Your task to perform on an android device: turn off notifications settings in the gmail app Image 0: 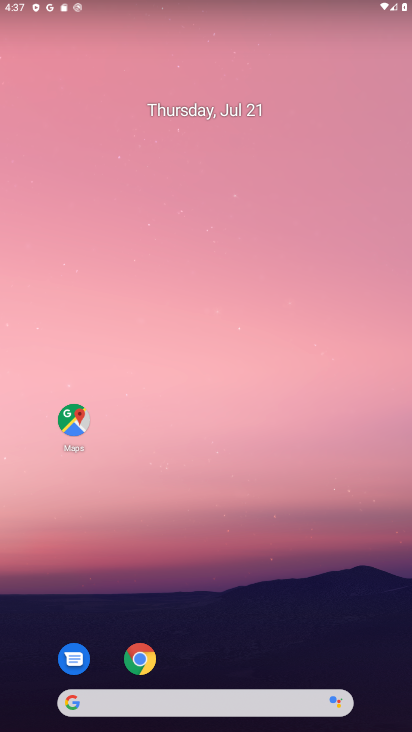
Step 0: drag from (245, 608) to (167, 126)
Your task to perform on an android device: turn off notifications settings in the gmail app Image 1: 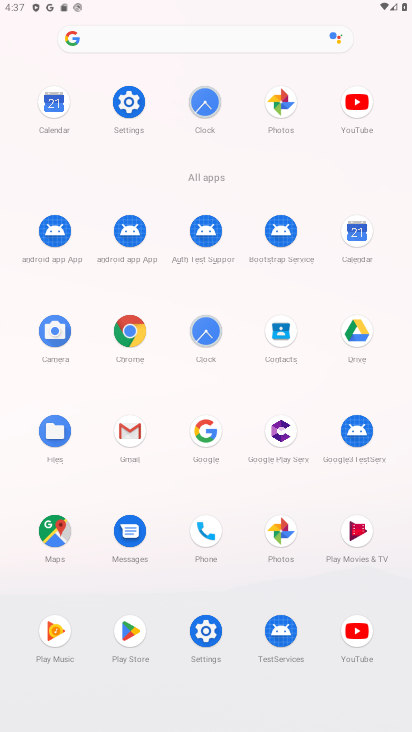
Step 1: click (128, 432)
Your task to perform on an android device: turn off notifications settings in the gmail app Image 2: 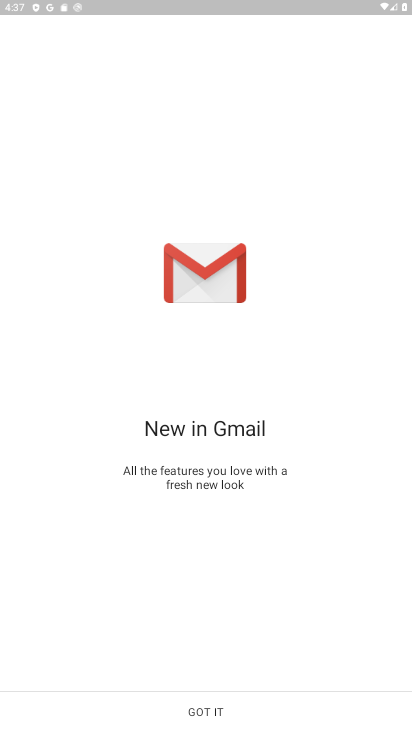
Step 2: click (206, 705)
Your task to perform on an android device: turn off notifications settings in the gmail app Image 3: 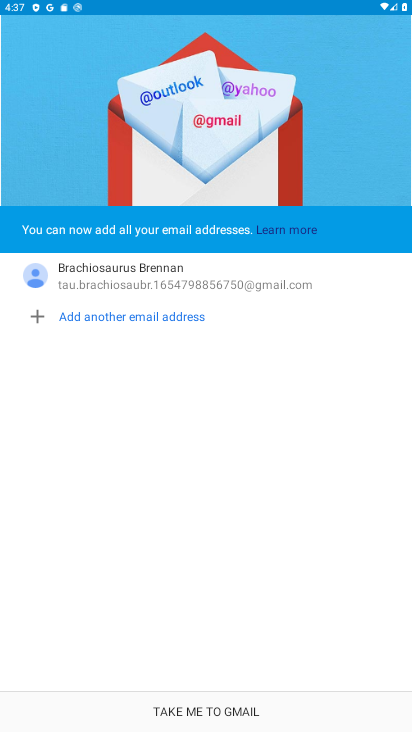
Step 3: click (206, 705)
Your task to perform on an android device: turn off notifications settings in the gmail app Image 4: 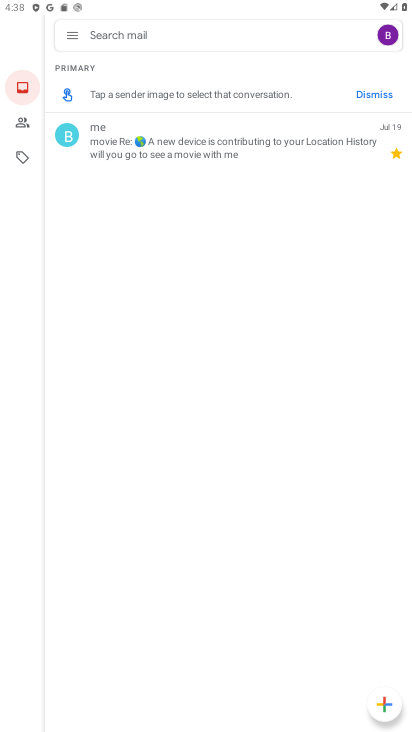
Step 4: click (71, 30)
Your task to perform on an android device: turn off notifications settings in the gmail app Image 5: 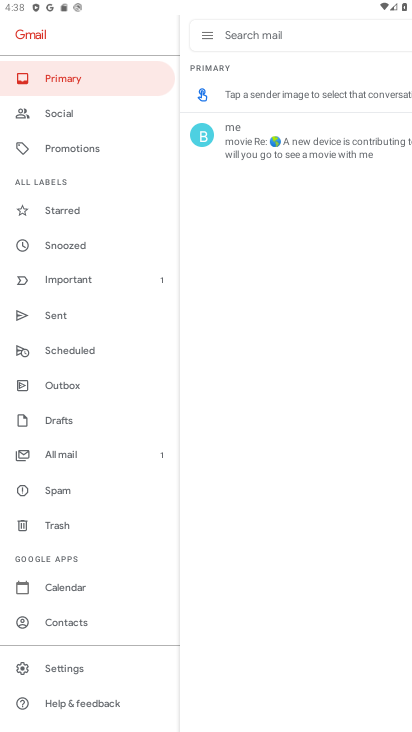
Step 5: click (68, 665)
Your task to perform on an android device: turn off notifications settings in the gmail app Image 6: 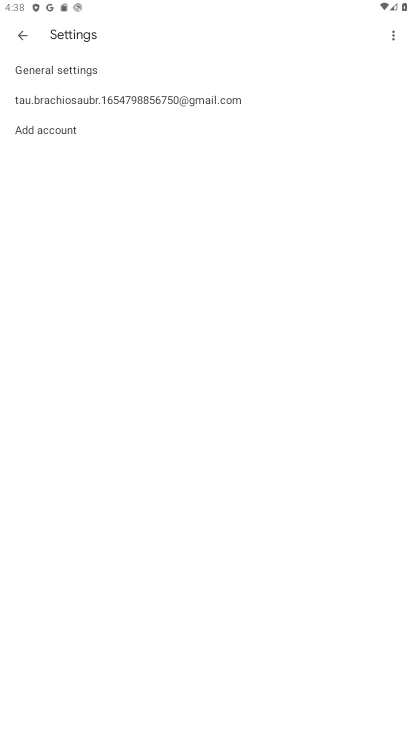
Step 6: click (63, 67)
Your task to perform on an android device: turn off notifications settings in the gmail app Image 7: 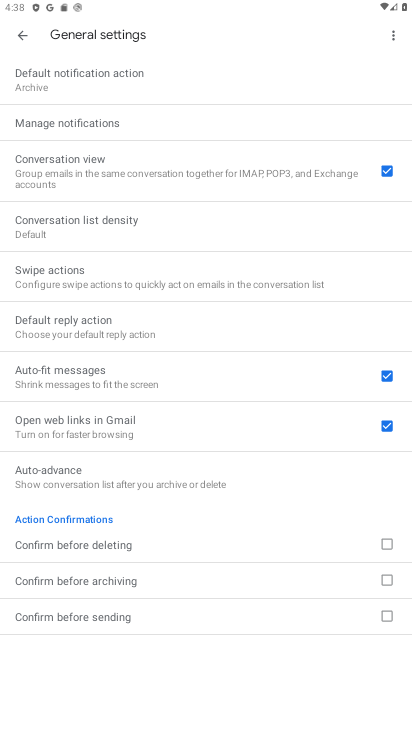
Step 7: click (74, 117)
Your task to perform on an android device: turn off notifications settings in the gmail app Image 8: 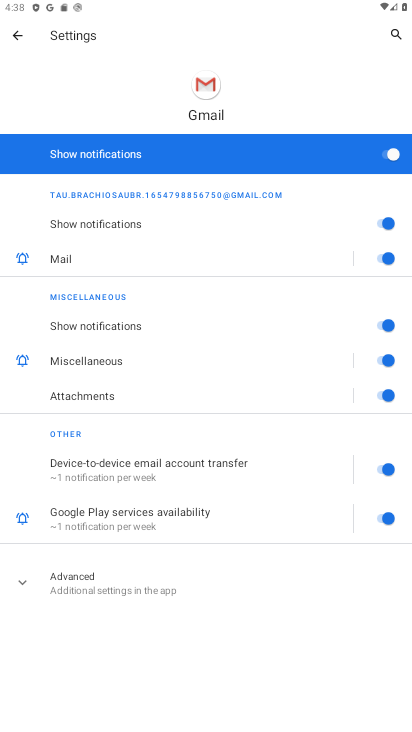
Step 8: click (396, 155)
Your task to perform on an android device: turn off notifications settings in the gmail app Image 9: 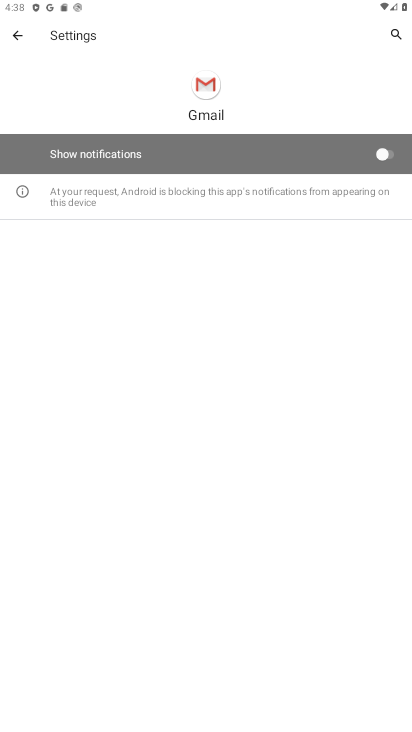
Step 9: task complete